Your task to perform on an android device: add a contact Image 0: 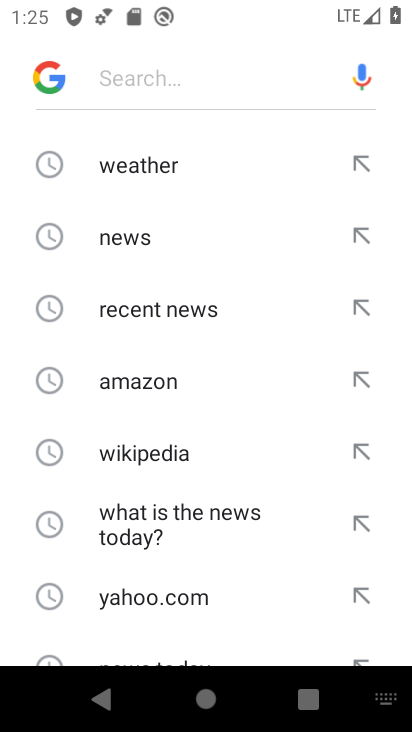
Step 0: press home button
Your task to perform on an android device: add a contact Image 1: 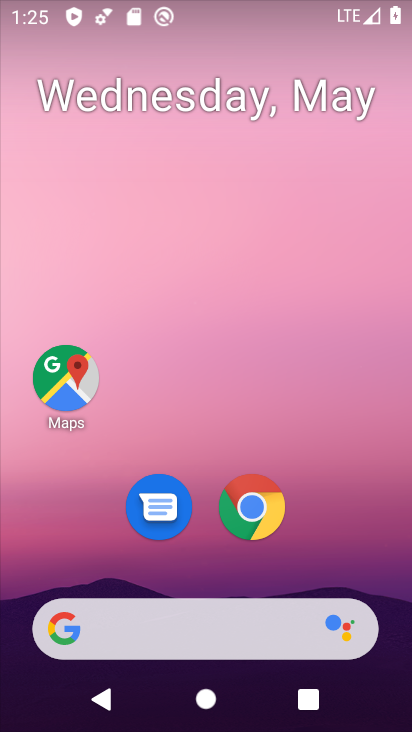
Step 1: drag from (395, 594) to (269, 229)
Your task to perform on an android device: add a contact Image 2: 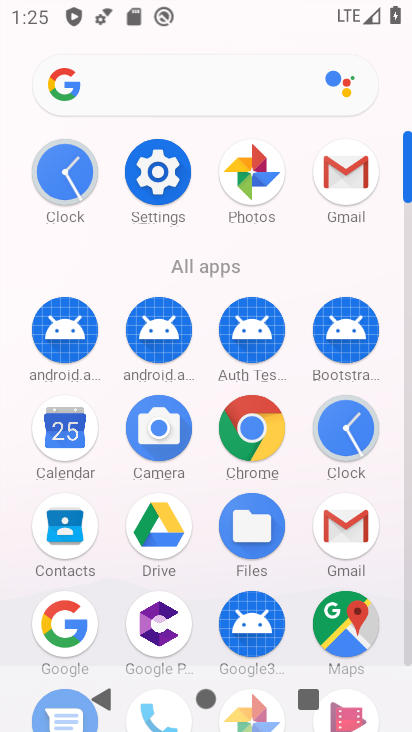
Step 2: click (78, 523)
Your task to perform on an android device: add a contact Image 3: 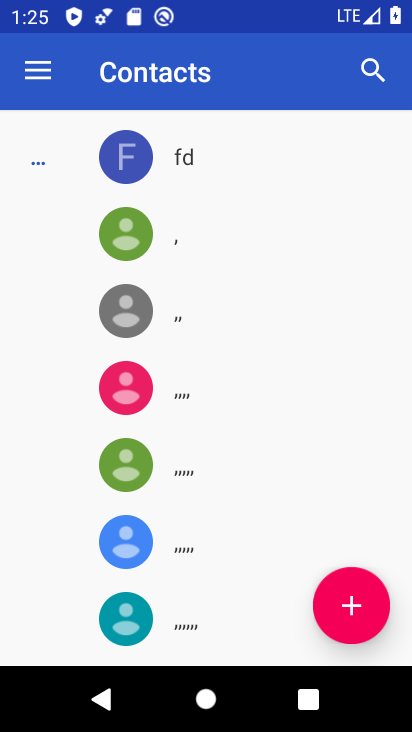
Step 3: click (356, 602)
Your task to perform on an android device: add a contact Image 4: 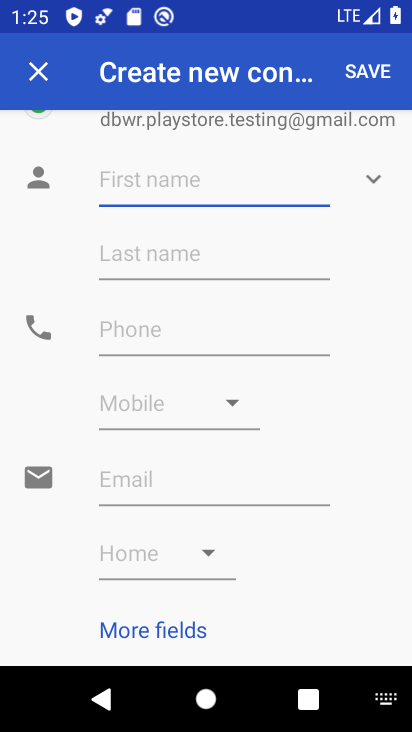
Step 4: click (217, 192)
Your task to perform on an android device: add a contact Image 5: 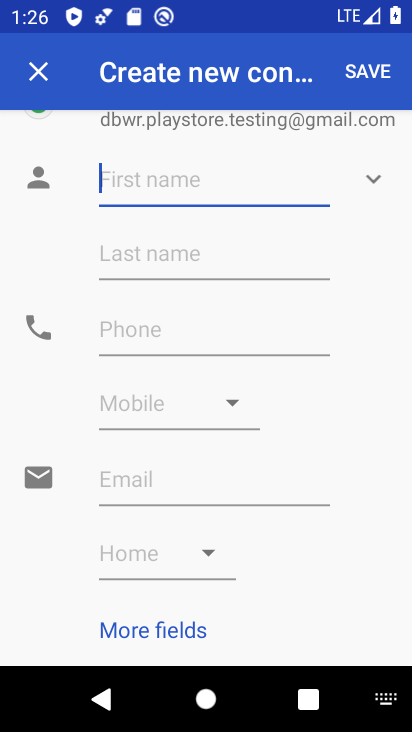
Step 5: type "jndmjndj"
Your task to perform on an android device: add a contact Image 6: 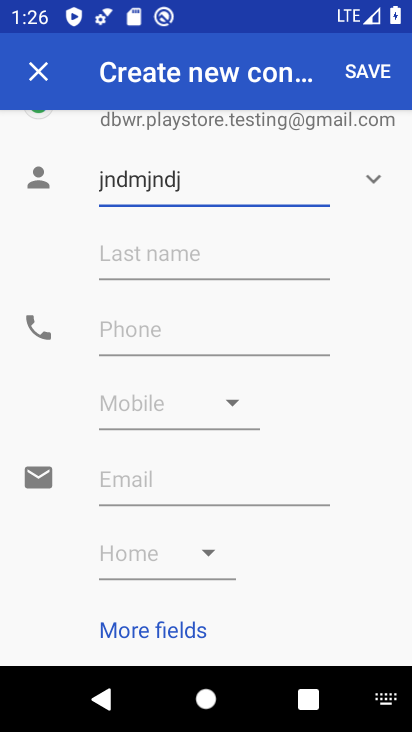
Step 6: click (255, 343)
Your task to perform on an android device: add a contact Image 7: 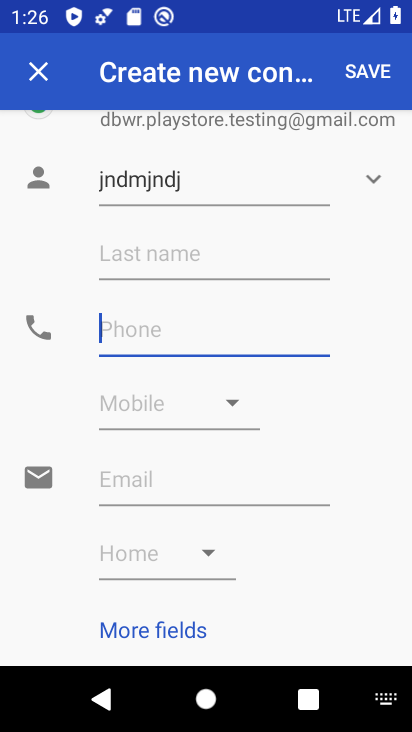
Step 7: type "883292839"
Your task to perform on an android device: add a contact Image 8: 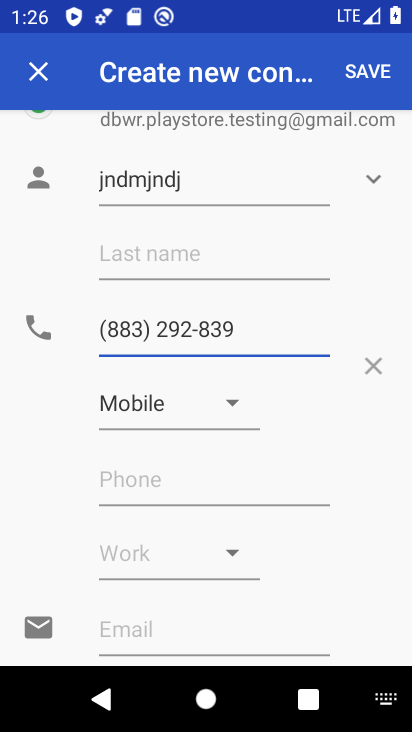
Step 8: click (376, 67)
Your task to perform on an android device: add a contact Image 9: 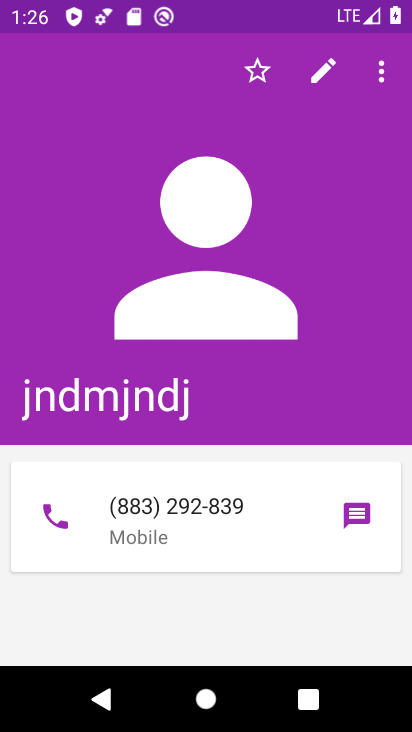
Step 9: task complete